Your task to perform on an android device: Go to settings Image 0: 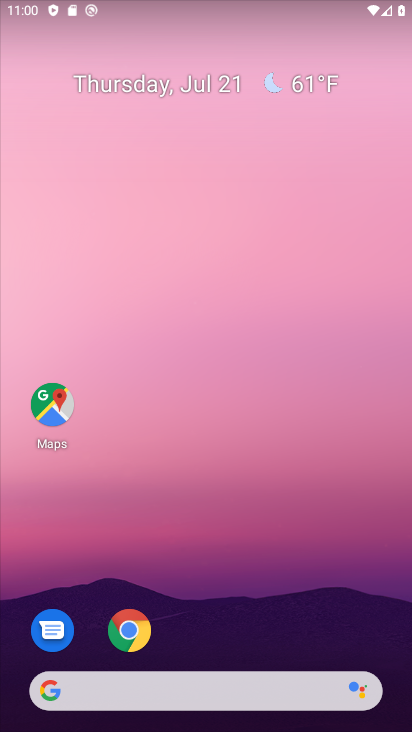
Step 0: drag from (188, 676) to (188, 104)
Your task to perform on an android device: Go to settings Image 1: 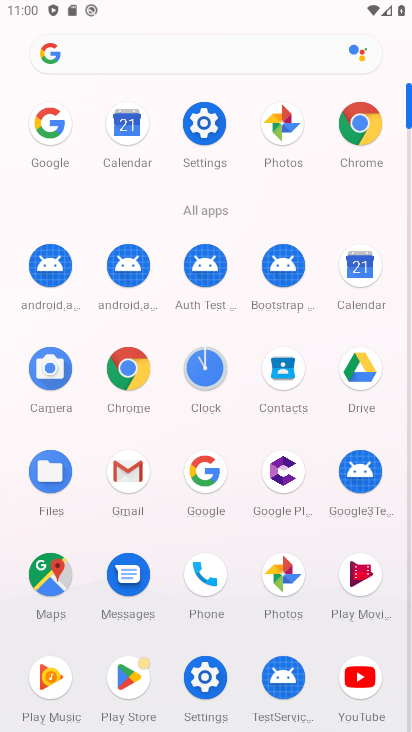
Step 1: click (202, 129)
Your task to perform on an android device: Go to settings Image 2: 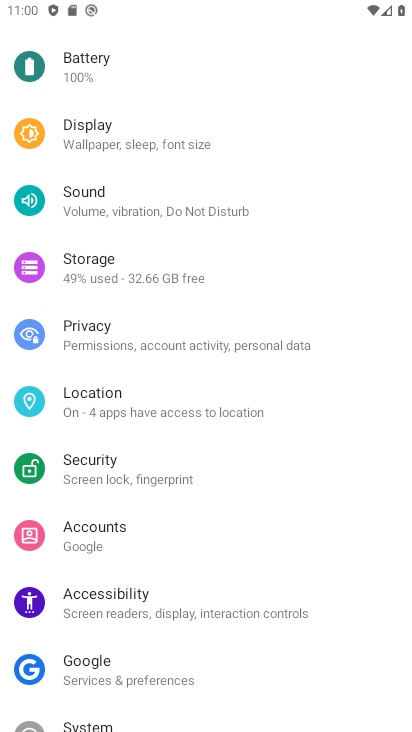
Step 2: task complete